Your task to perform on an android device: find photos in the google photos app Image 0: 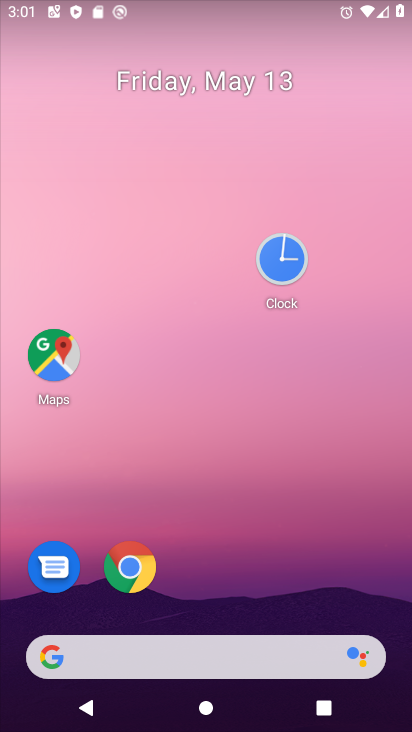
Step 0: drag from (245, 593) to (293, 74)
Your task to perform on an android device: find photos in the google photos app Image 1: 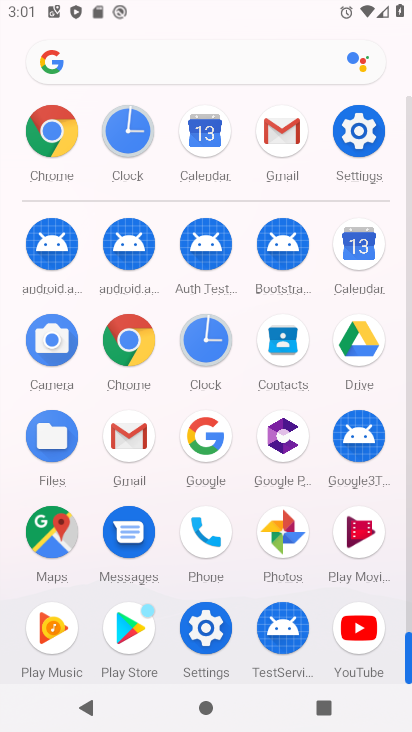
Step 1: click (289, 541)
Your task to perform on an android device: find photos in the google photos app Image 2: 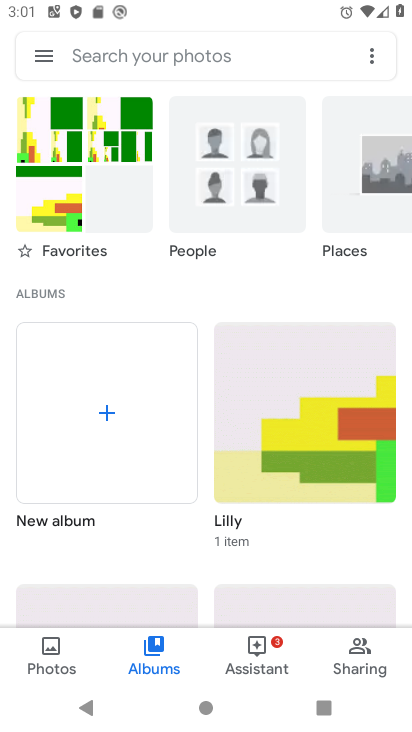
Step 2: click (46, 651)
Your task to perform on an android device: find photos in the google photos app Image 3: 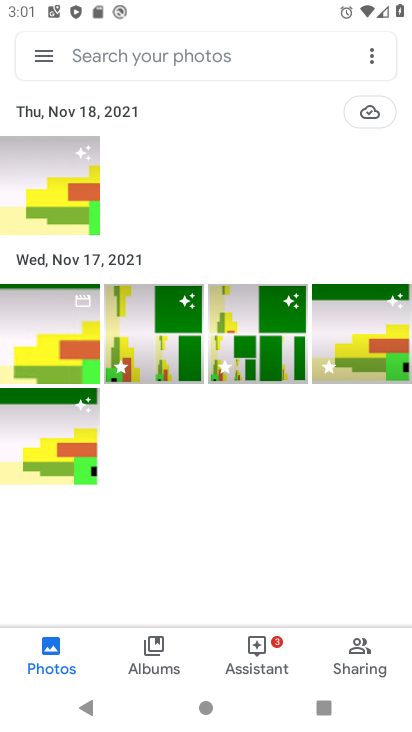
Step 3: task complete